Your task to perform on an android device: What's the weather today? Image 0: 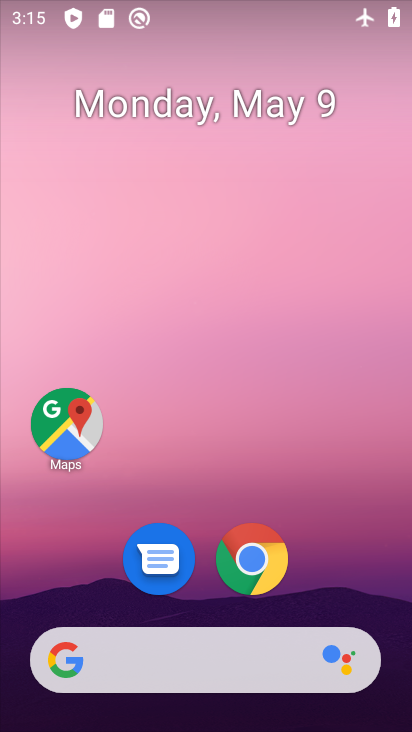
Step 0: drag from (220, 725) to (218, 270)
Your task to perform on an android device: What's the weather today? Image 1: 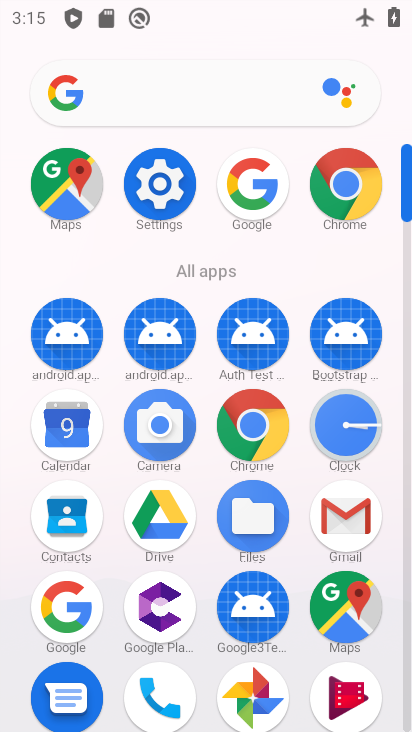
Step 1: click (65, 610)
Your task to perform on an android device: What's the weather today? Image 2: 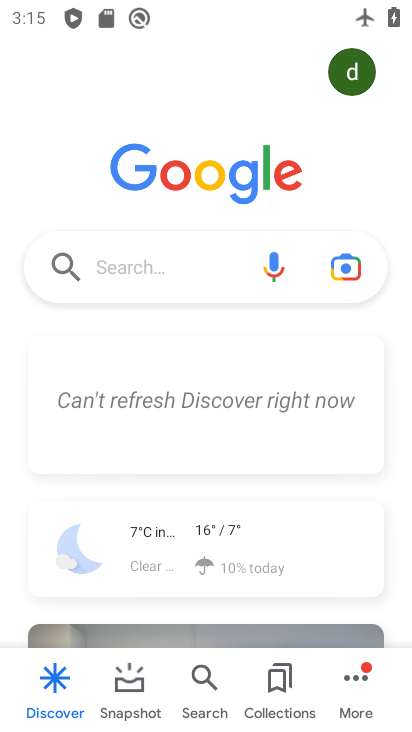
Step 2: click (155, 533)
Your task to perform on an android device: What's the weather today? Image 3: 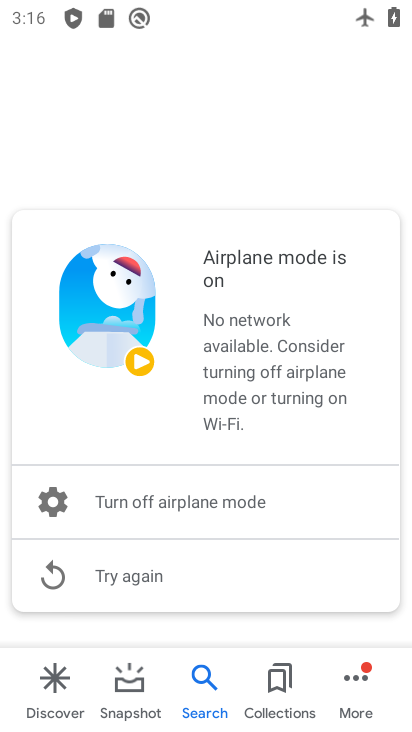
Step 3: task complete